Your task to perform on an android device: Go to ESPN.com Image 0: 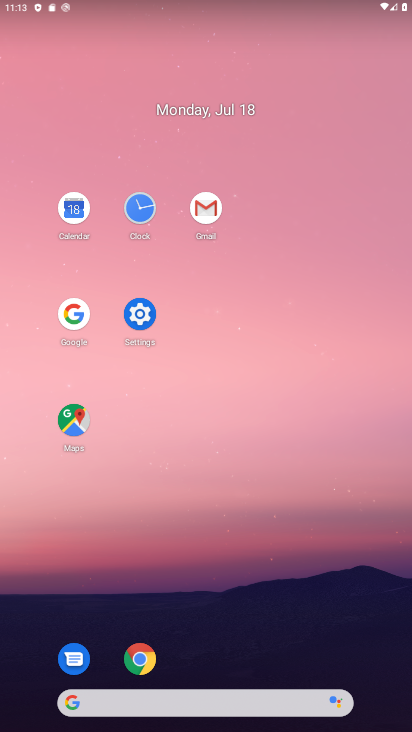
Step 0: click (403, 393)
Your task to perform on an android device: Go to ESPN.com Image 1: 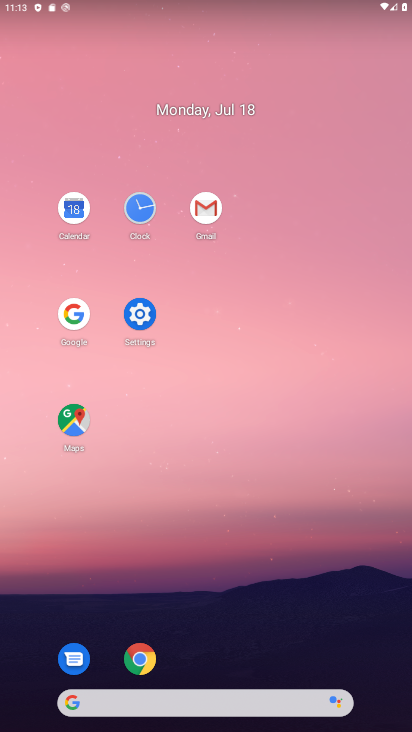
Step 1: drag from (249, 627) to (229, 257)
Your task to perform on an android device: Go to ESPN.com Image 2: 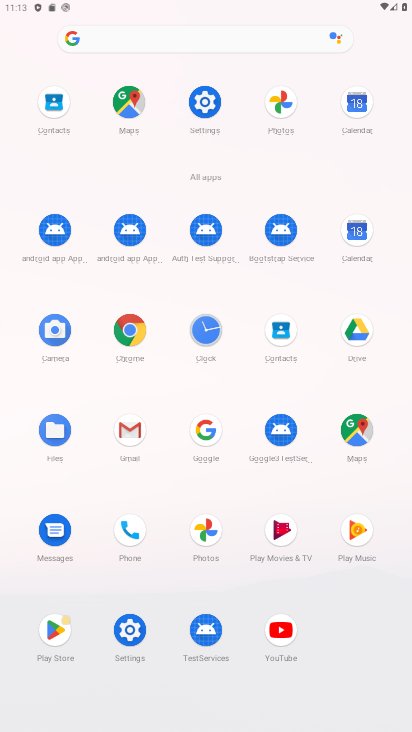
Step 2: drag from (130, 332) to (269, 301)
Your task to perform on an android device: Go to ESPN.com Image 3: 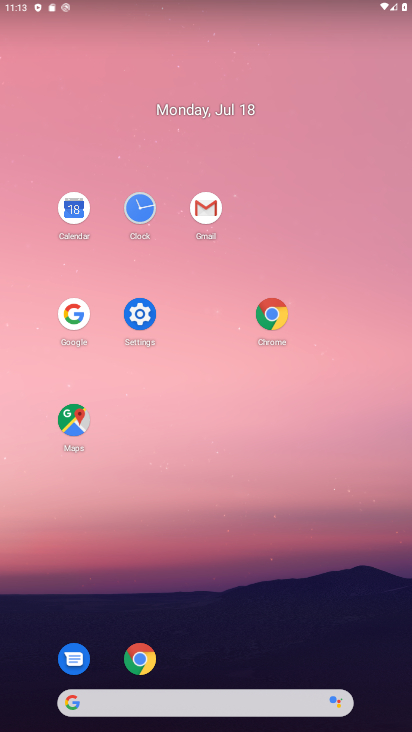
Step 3: click (273, 311)
Your task to perform on an android device: Go to ESPN.com Image 4: 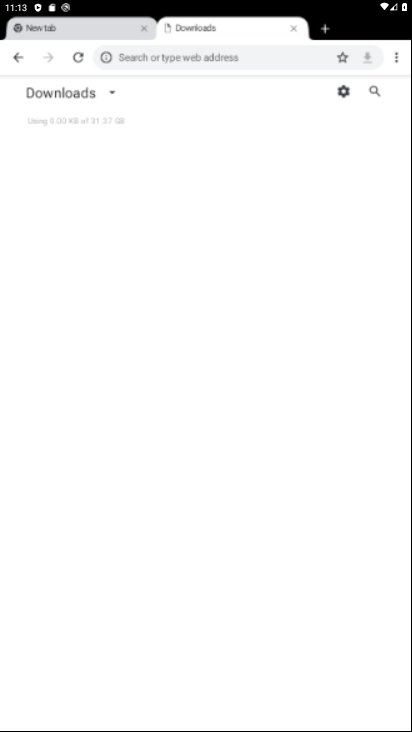
Step 4: click (341, 22)
Your task to perform on an android device: Go to ESPN.com Image 5: 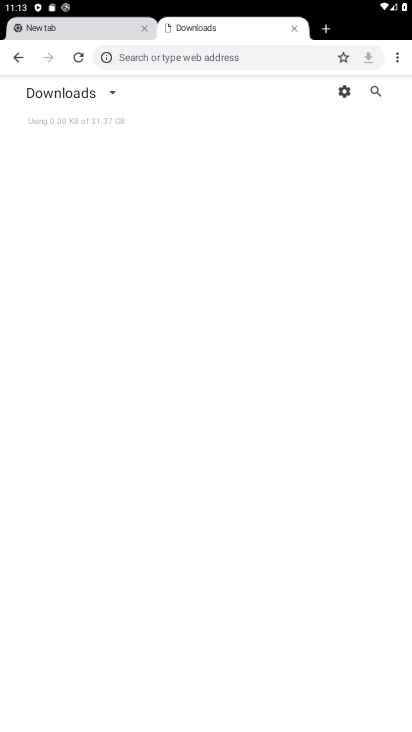
Step 5: click (327, 28)
Your task to perform on an android device: Go to ESPN.com Image 6: 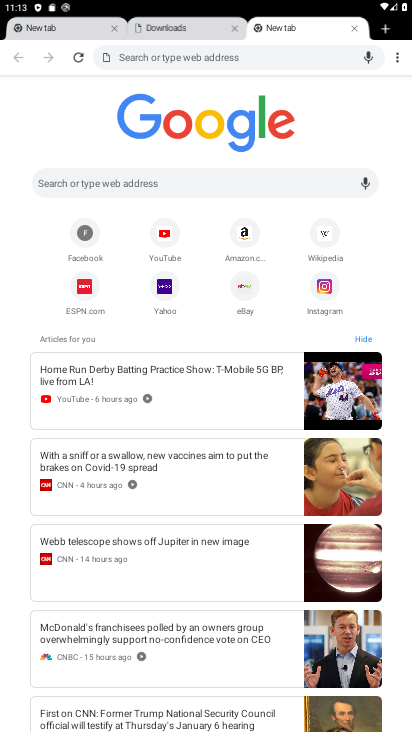
Step 6: click (79, 282)
Your task to perform on an android device: Go to ESPN.com Image 7: 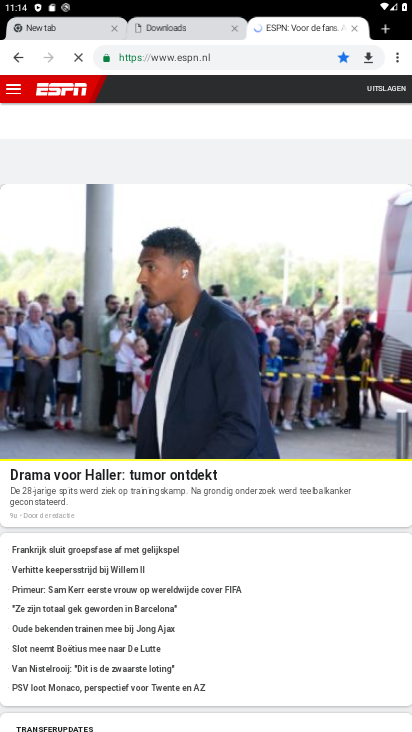
Step 7: task complete